Your task to perform on an android device: find snoozed emails in the gmail app Image 0: 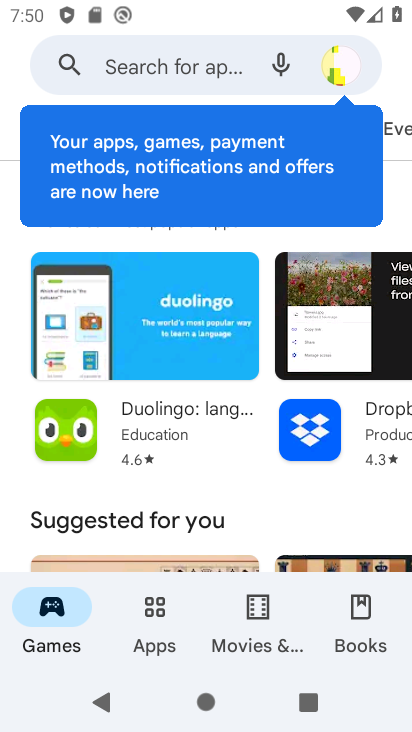
Step 0: press home button
Your task to perform on an android device: find snoozed emails in the gmail app Image 1: 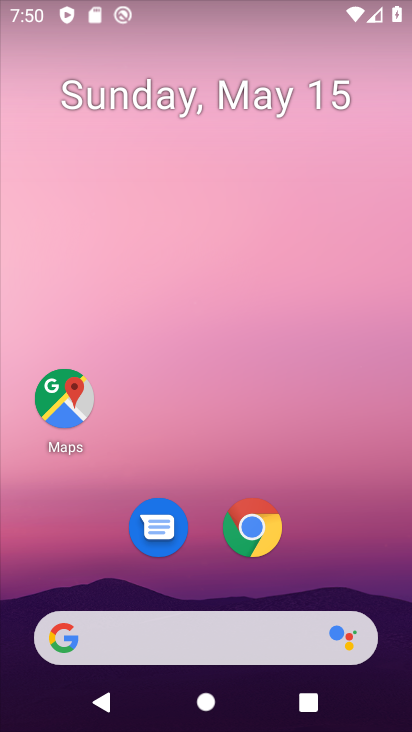
Step 1: drag from (186, 344) to (203, 158)
Your task to perform on an android device: find snoozed emails in the gmail app Image 2: 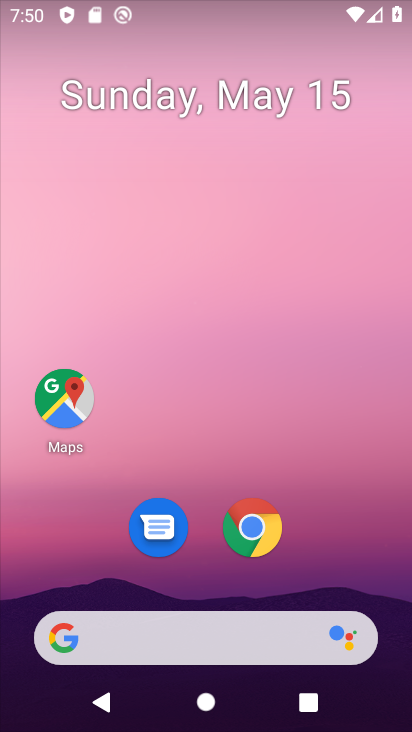
Step 2: drag from (197, 583) to (228, 211)
Your task to perform on an android device: find snoozed emails in the gmail app Image 3: 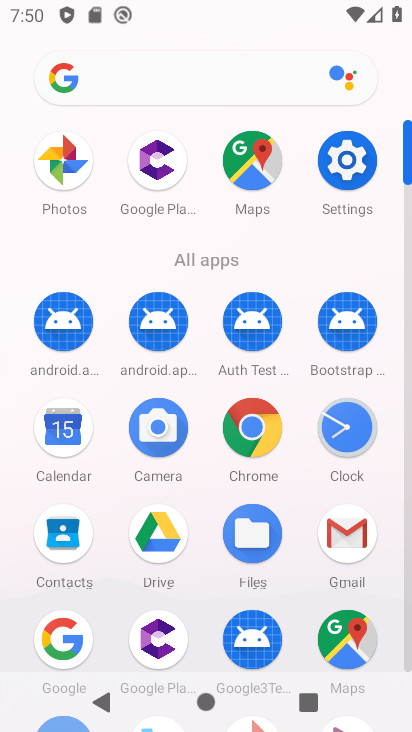
Step 3: click (330, 535)
Your task to perform on an android device: find snoozed emails in the gmail app Image 4: 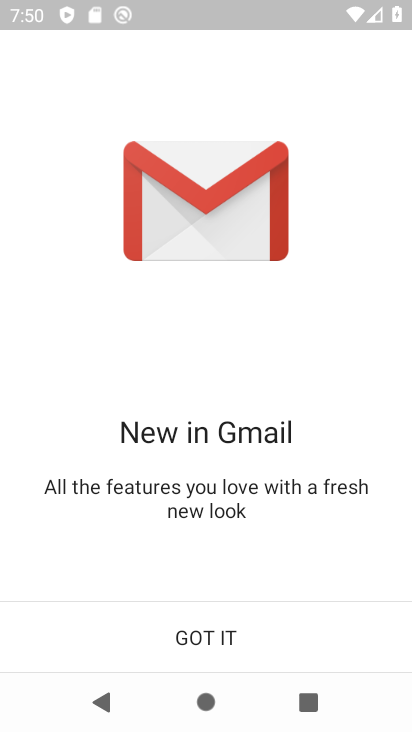
Step 4: click (210, 626)
Your task to perform on an android device: find snoozed emails in the gmail app Image 5: 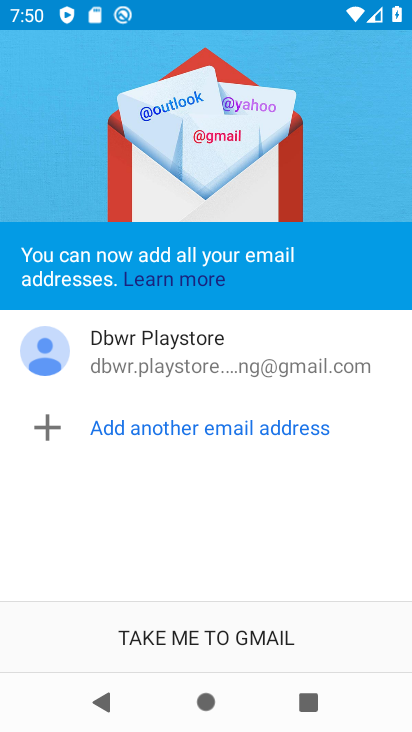
Step 5: click (210, 626)
Your task to perform on an android device: find snoozed emails in the gmail app Image 6: 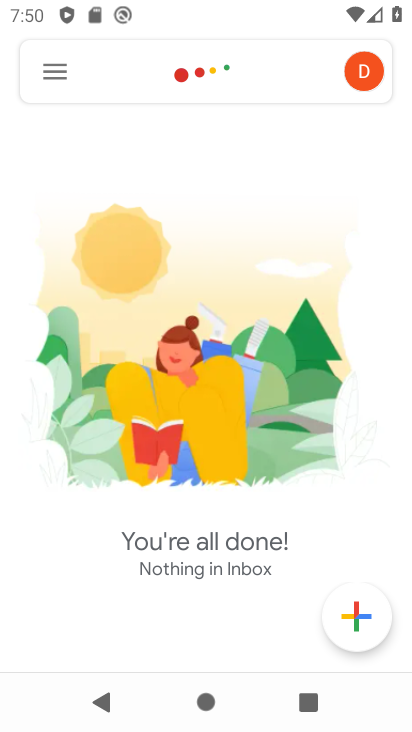
Step 6: click (56, 74)
Your task to perform on an android device: find snoozed emails in the gmail app Image 7: 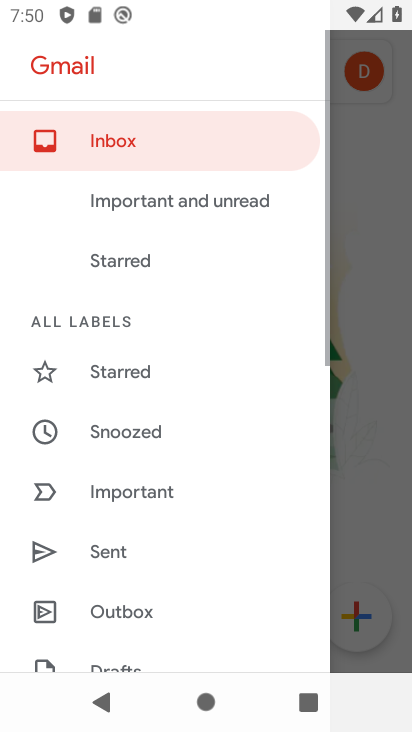
Step 7: drag from (142, 371) to (134, 428)
Your task to perform on an android device: find snoozed emails in the gmail app Image 8: 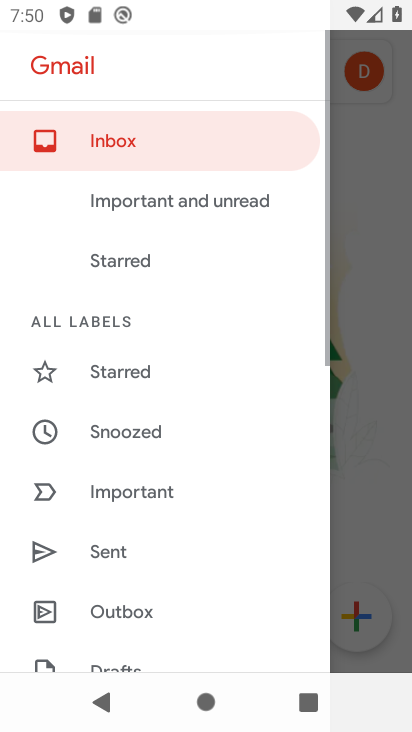
Step 8: click (134, 428)
Your task to perform on an android device: find snoozed emails in the gmail app Image 9: 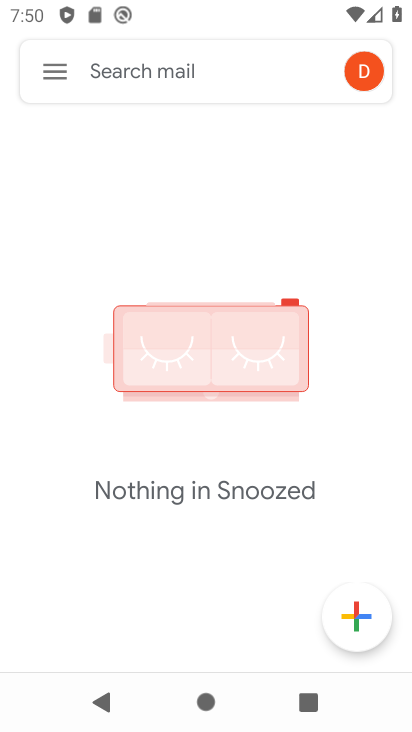
Step 9: task complete